Your task to perform on an android device: Open notification settings Image 0: 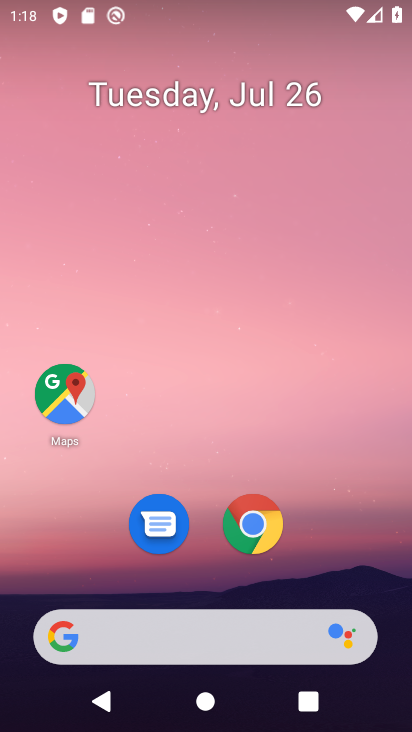
Step 0: drag from (215, 630) to (356, 153)
Your task to perform on an android device: Open notification settings Image 1: 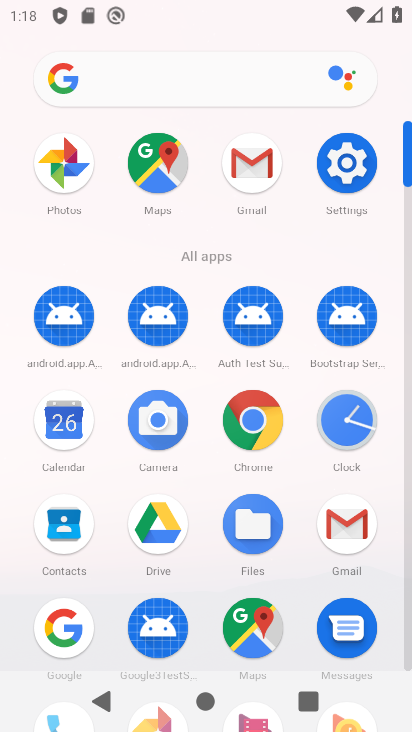
Step 1: click (344, 165)
Your task to perform on an android device: Open notification settings Image 2: 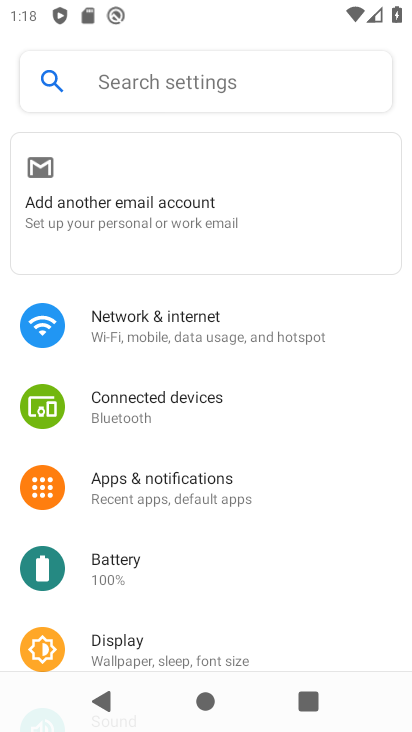
Step 2: click (183, 489)
Your task to perform on an android device: Open notification settings Image 3: 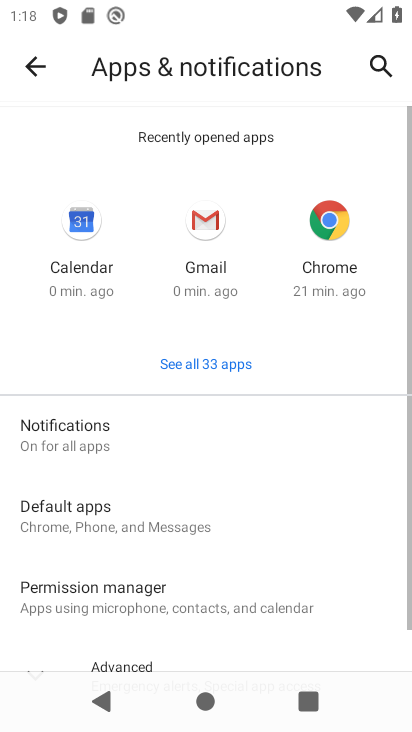
Step 3: click (98, 443)
Your task to perform on an android device: Open notification settings Image 4: 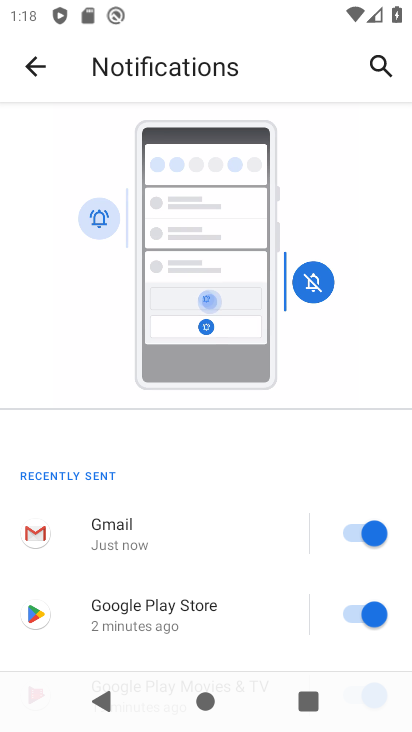
Step 4: task complete